Your task to perform on an android device: delete location history Image 0: 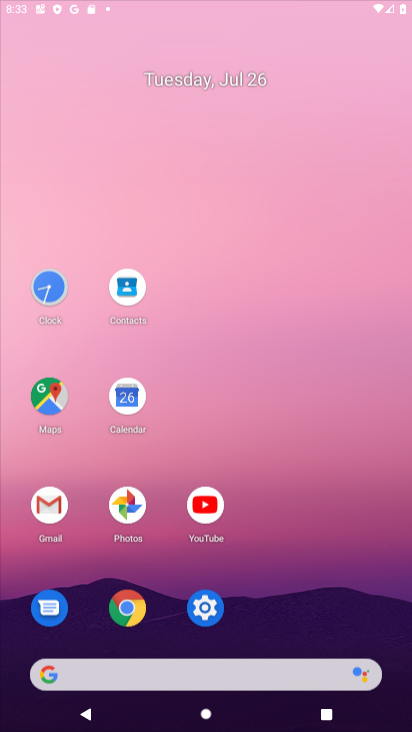
Step 0: click (204, 611)
Your task to perform on an android device: delete location history Image 1: 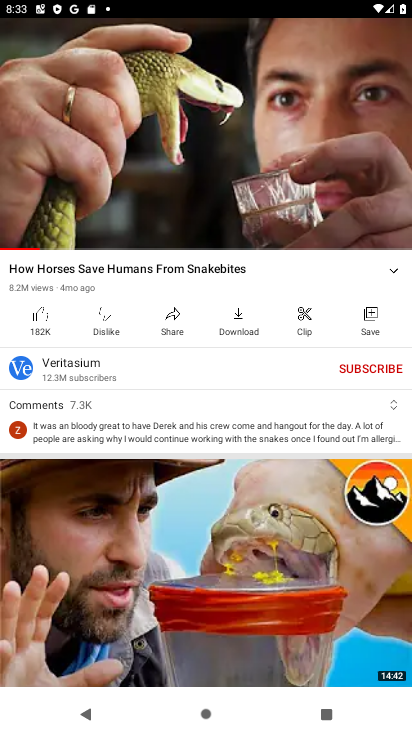
Step 1: press home button
Your task to perform on an android device: delete location history Image 2: 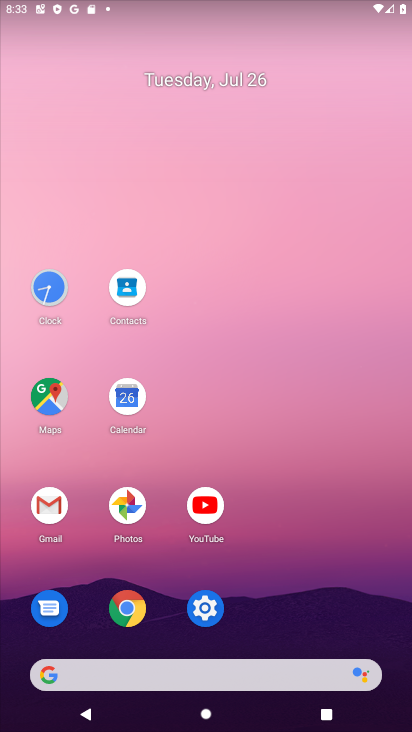
Step 2: click (42, 391)
Your task to perform on an android device: delete location history Image 3: 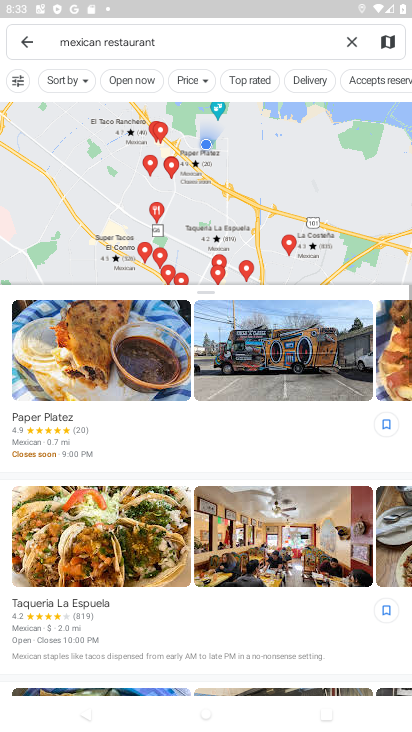
Step 3: click (18, 45)
Your task to perform on an android device: delete location history Image 4: 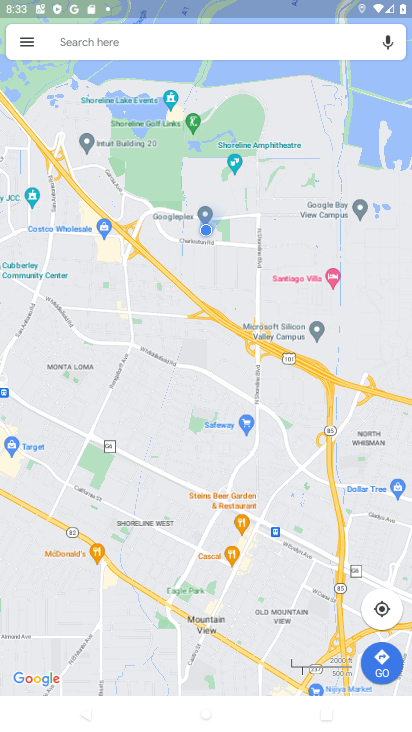
Step 4: click (15, 43)
Your task to perform on an android device: delete location history Image 5: 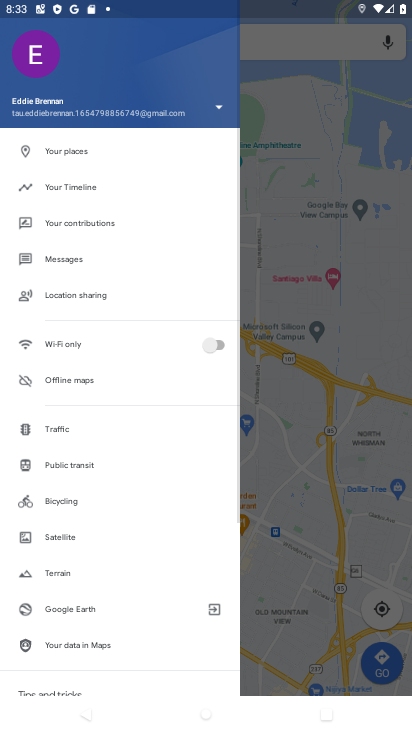
Step 5: click (76, 187)
Your task to perform on an android device: delete location history Image 6: 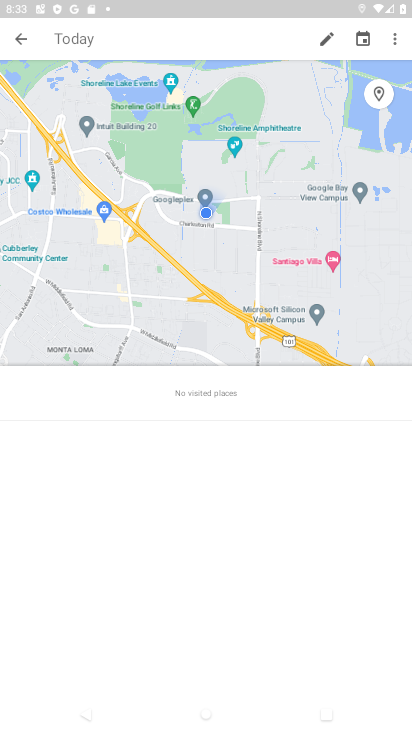
Step 6: click (393, 40)
Your task to perform on an android device: delete location history Image 7: 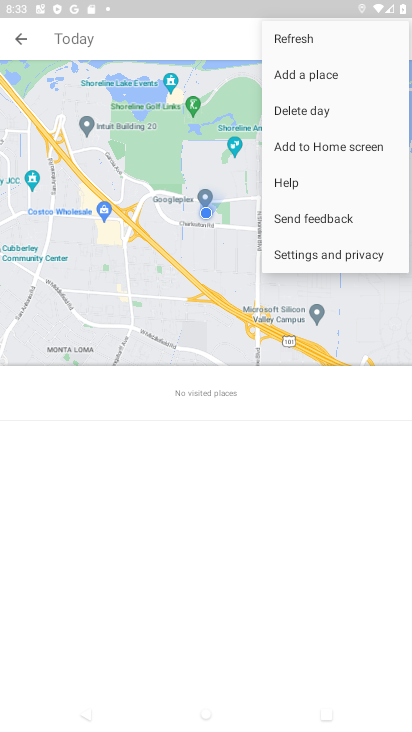
Step 7: click (318, 255)
Your task to perform on an android device: delete location history Image 8: 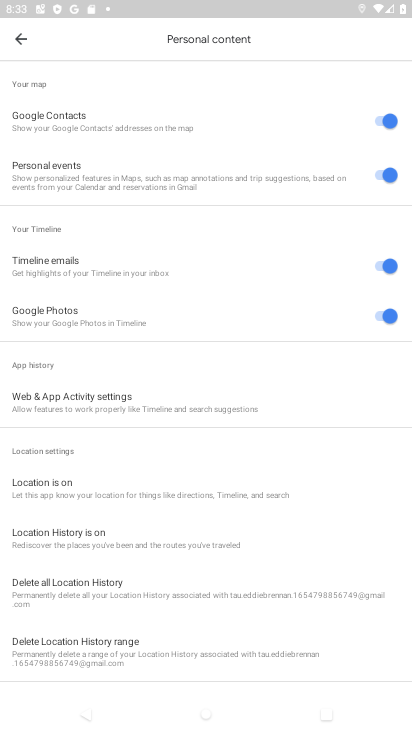
Step 8: click (93, 581)
Your task to perform on an android device: delete location history Image 9: 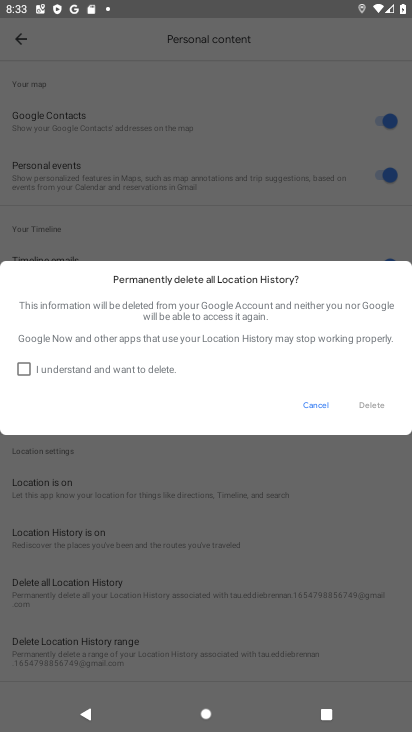
Step 9: click (20, 369)
Your task to perform on an android device: delete location history Image 10: 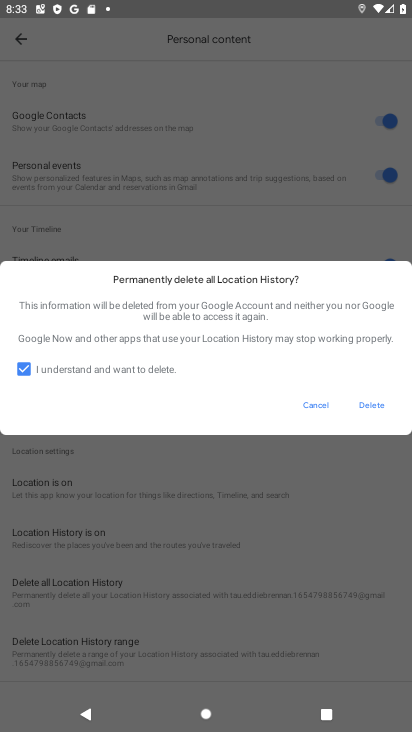
Step 10: click (376, 403)
Your task to perform on an android device: delete location history Image 11: 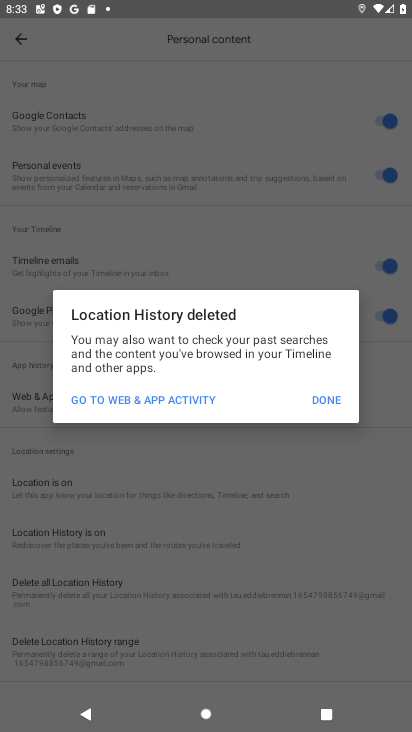
Step 11: click (328, 406)
Your task to perform on an android device: delete location history Image 12: 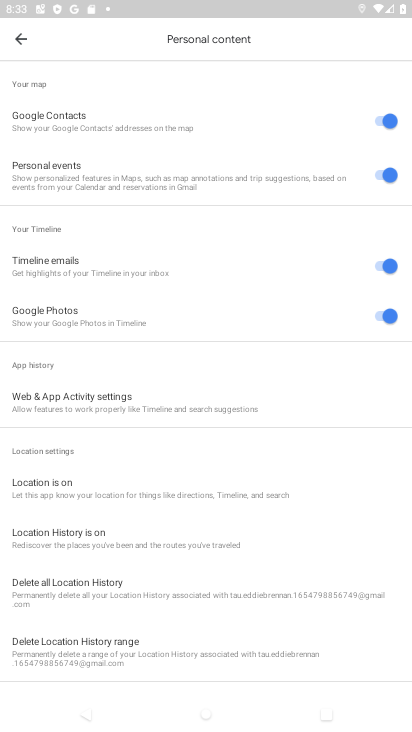
Step 12: task complete